Your task to perform on an android device: open app "YouTube Kids" (install if not already installed) Image 0: 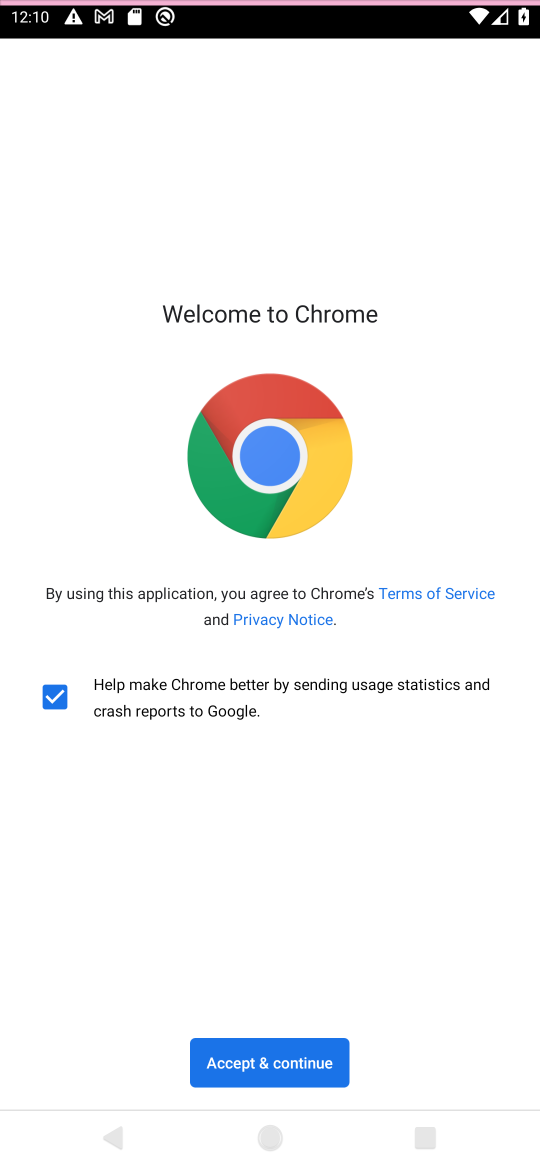
Step 0: press home button
Your task to perform on an android device: open app "YouTube Kids" (install if not already installed) Image 1: 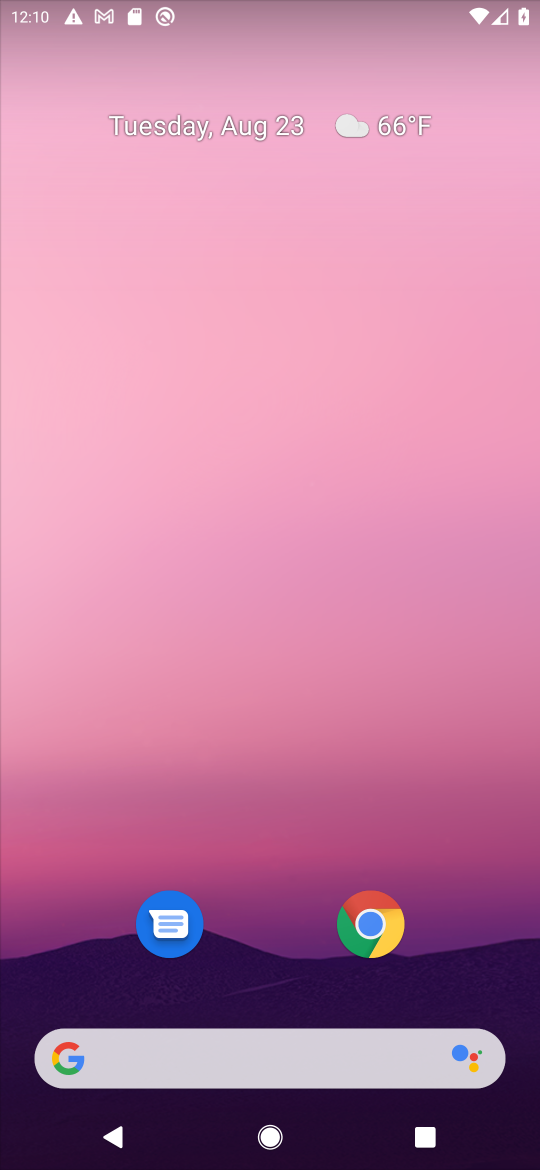
Step 1: drag from (463, 989) to (467, 136)
Your task to perform on an android device: open app "YouTube Kids" (install if not already installed) Image 2: 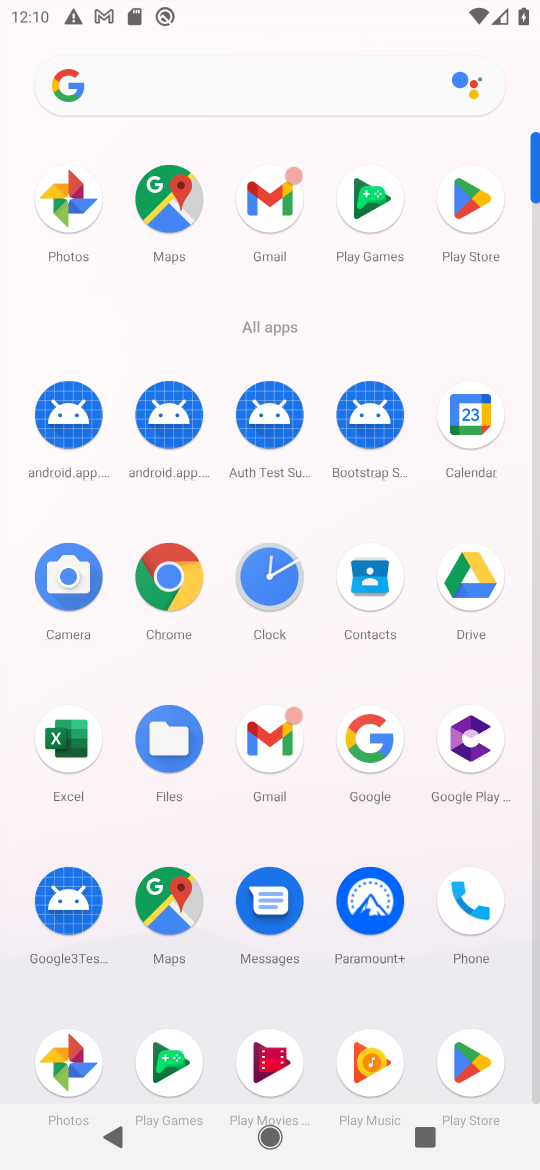
Step 2: click (471, 198)
Your task to perform on an android device: open app "YouTube Kids" (install if not already installed) Image 3: 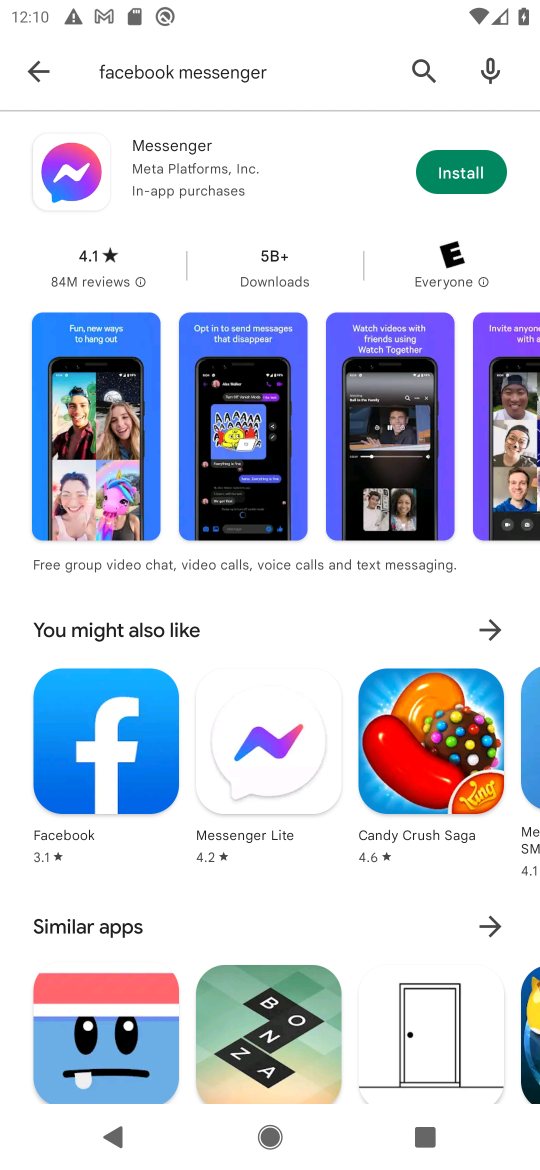
Step 3: press back button
Your task to perform on an android device: open app "YouTube Kids" (install if not already installed) Image 4: 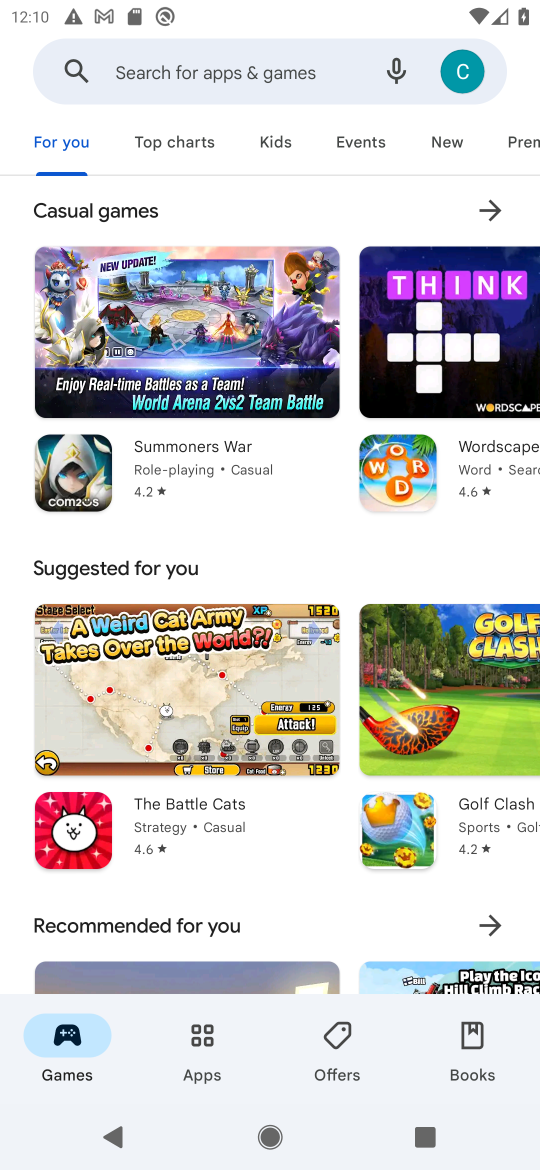
Step 4: click (269, 71)
Your task to perform on an android device: open app "YouTube Kids" (install if not already installed) Image 5: 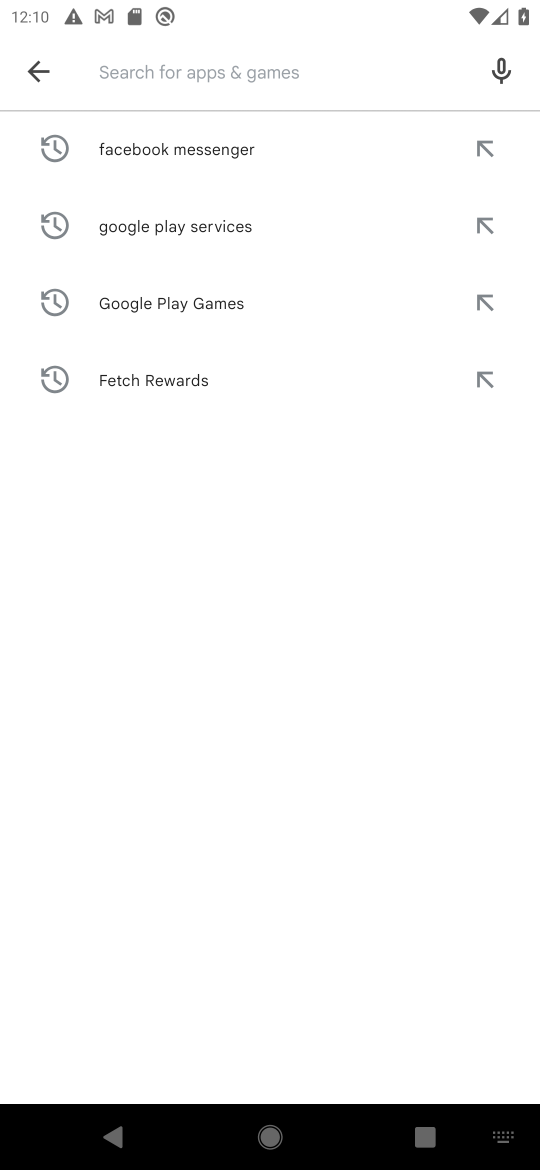
Step 5: type "YouTube Kids"
Your task to perform on an android device: open app "YouTube Kids" (install if not already installed) Image 6: 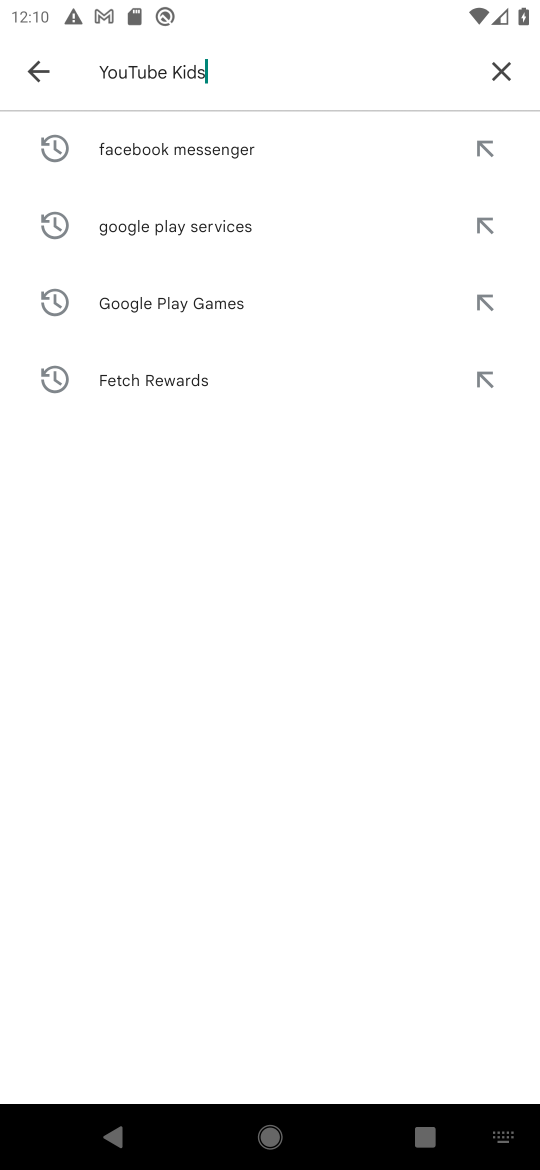
Step 6: press enter
Your task to perform on an android device: open app "YouTube Kids" (install if not already installed) Image 7: 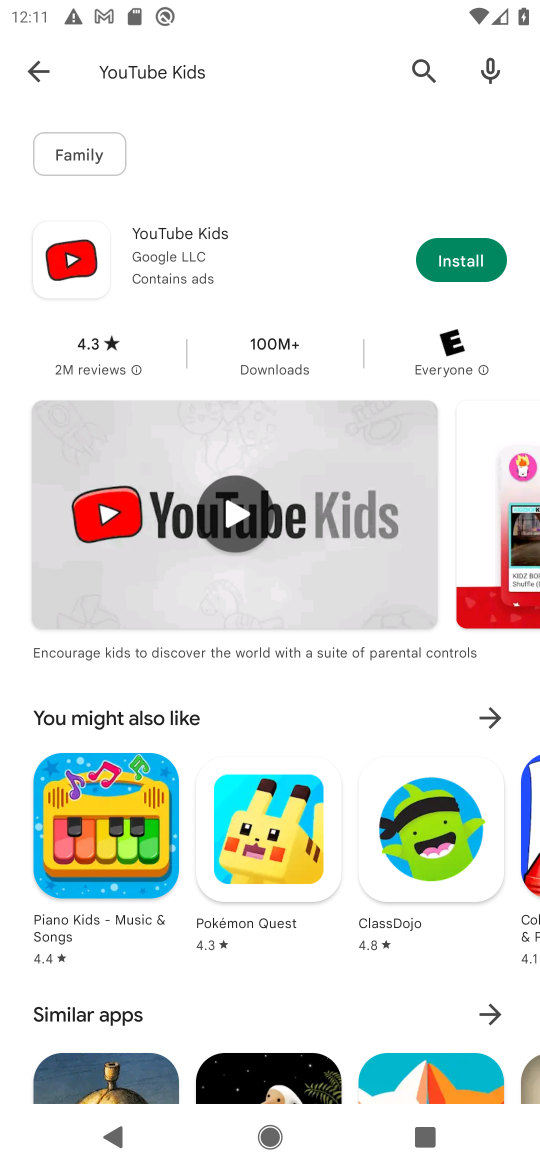
Step 7: click (476, 260)
Your task to perform on an android device: open app "YouTube Kids" (install if not already installed) Image 8: 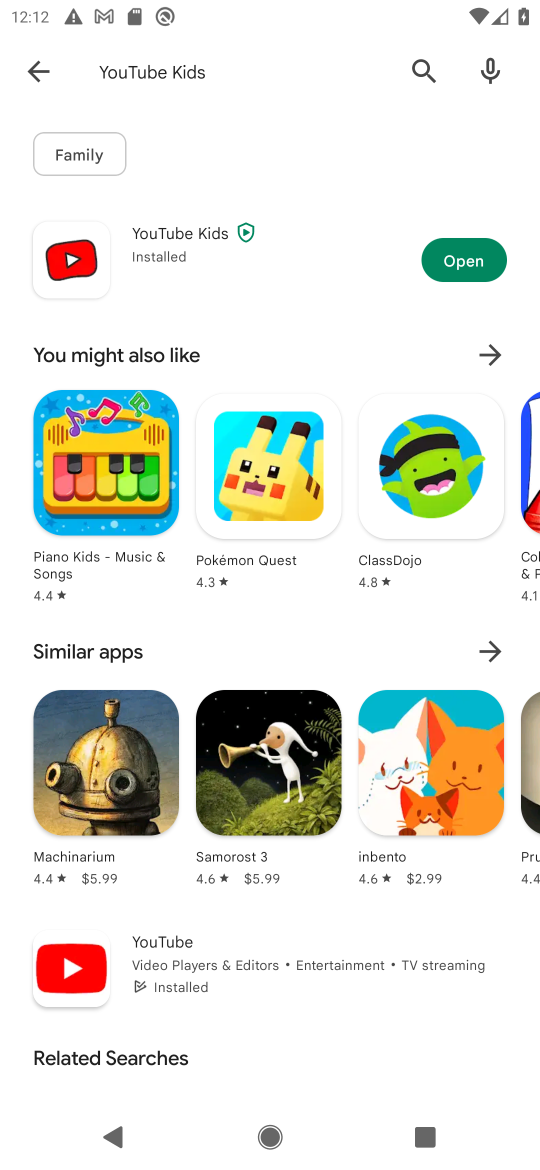
Step 8: click (469, 260)
Your task to perform on an android device: open app "YouTube Kids" (install if not already installed) Image 9: 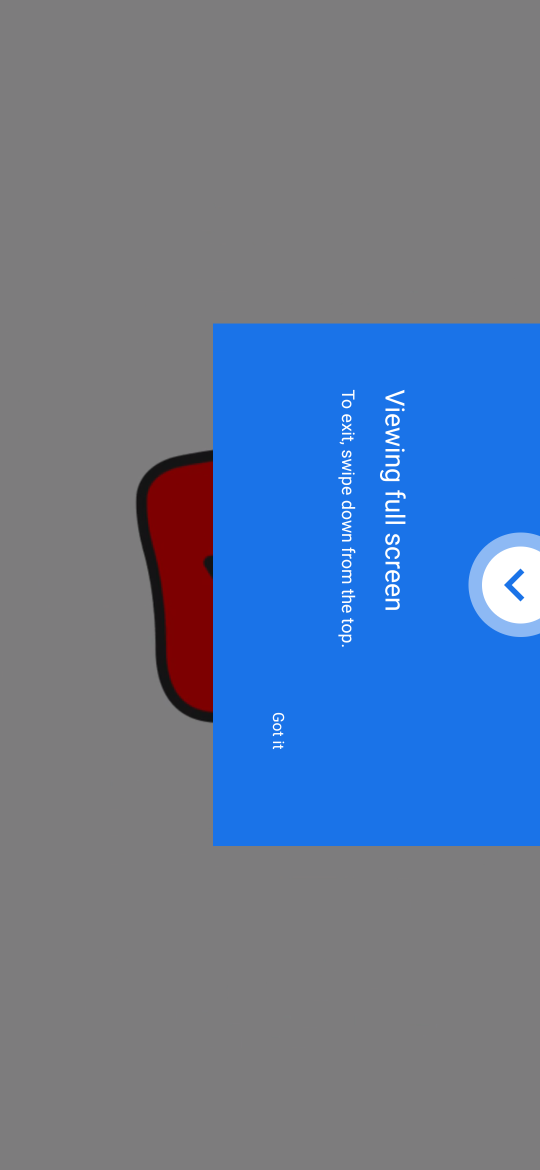
Step 9: task complete